Your task to perform on an android device: manage bookmarks in the chrome app Image 0: 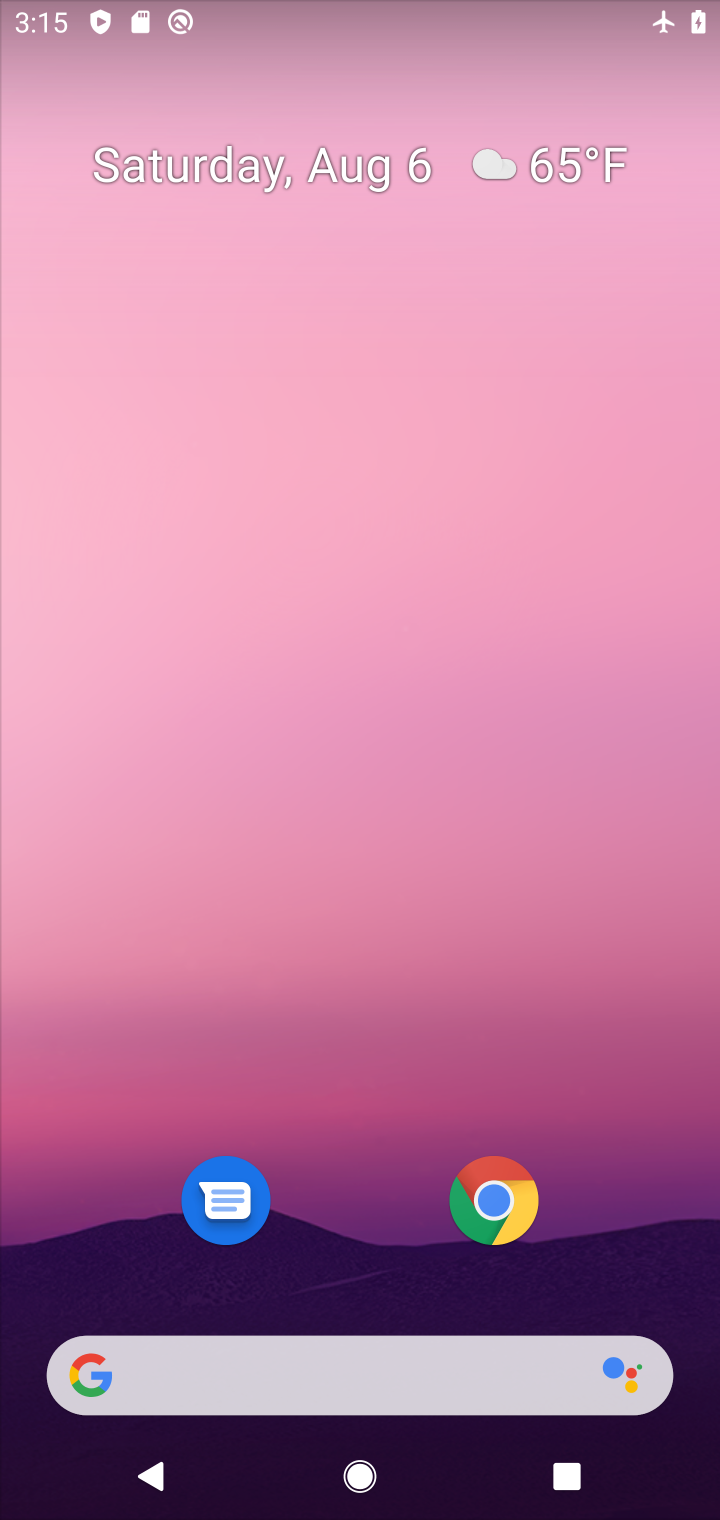
Step 0: click (464, 1187)
Your task to perform on an android device: manage bookmarks in the chrome app Image 1: 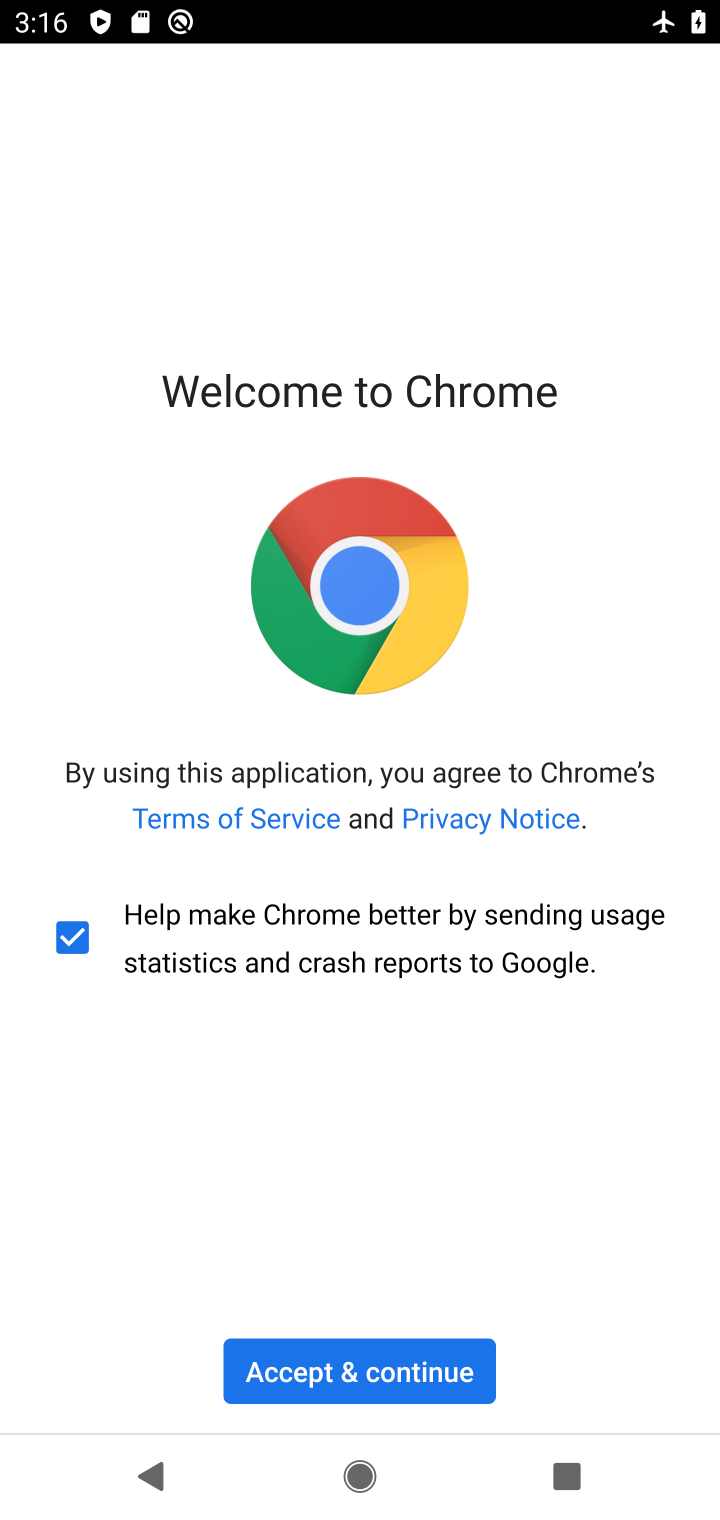
Step 1: click (339, 1371)
Your task to perform on an android device: manage bookmarks in the chrome app Image 2: 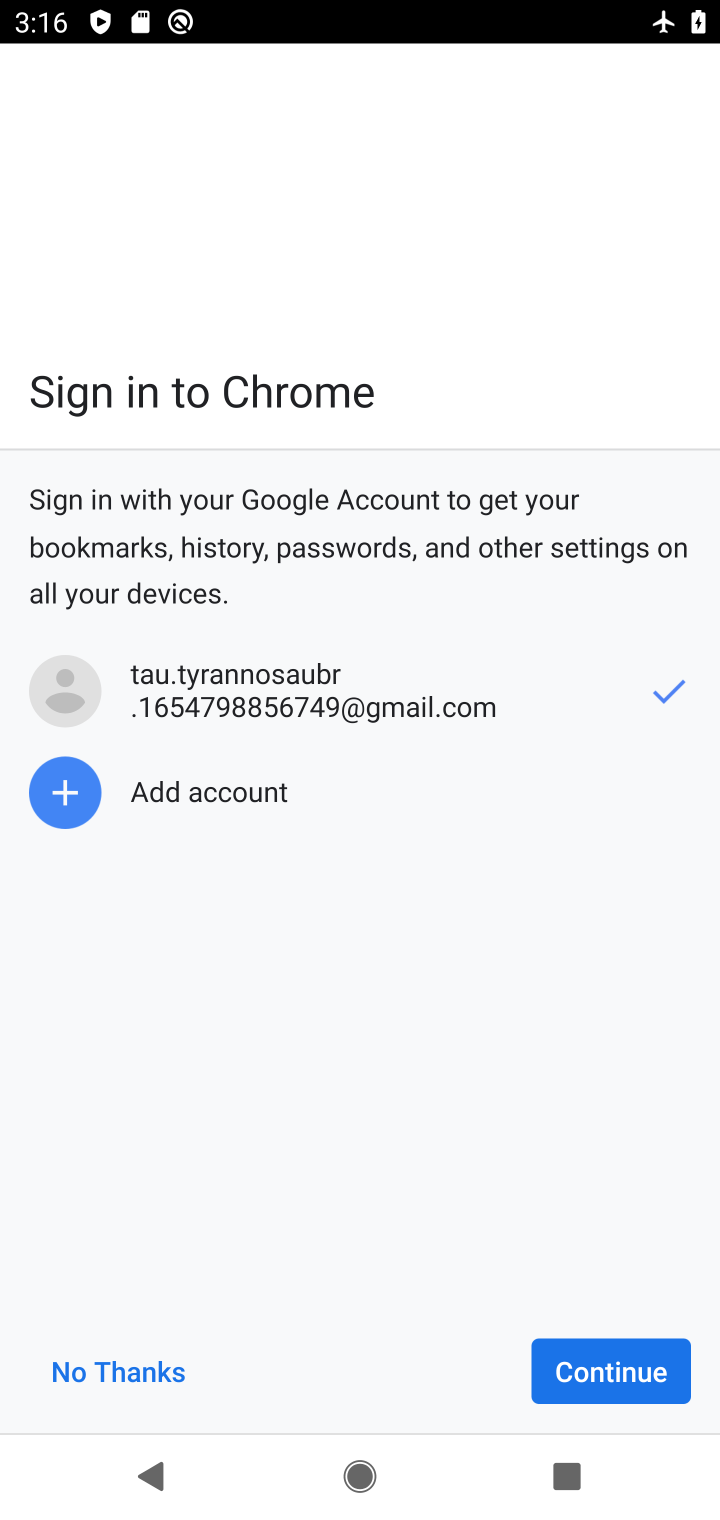
Step 2: click (591, 1392)
Your task to perform on an android device: manage bookmarks in the chrome app Image 3: 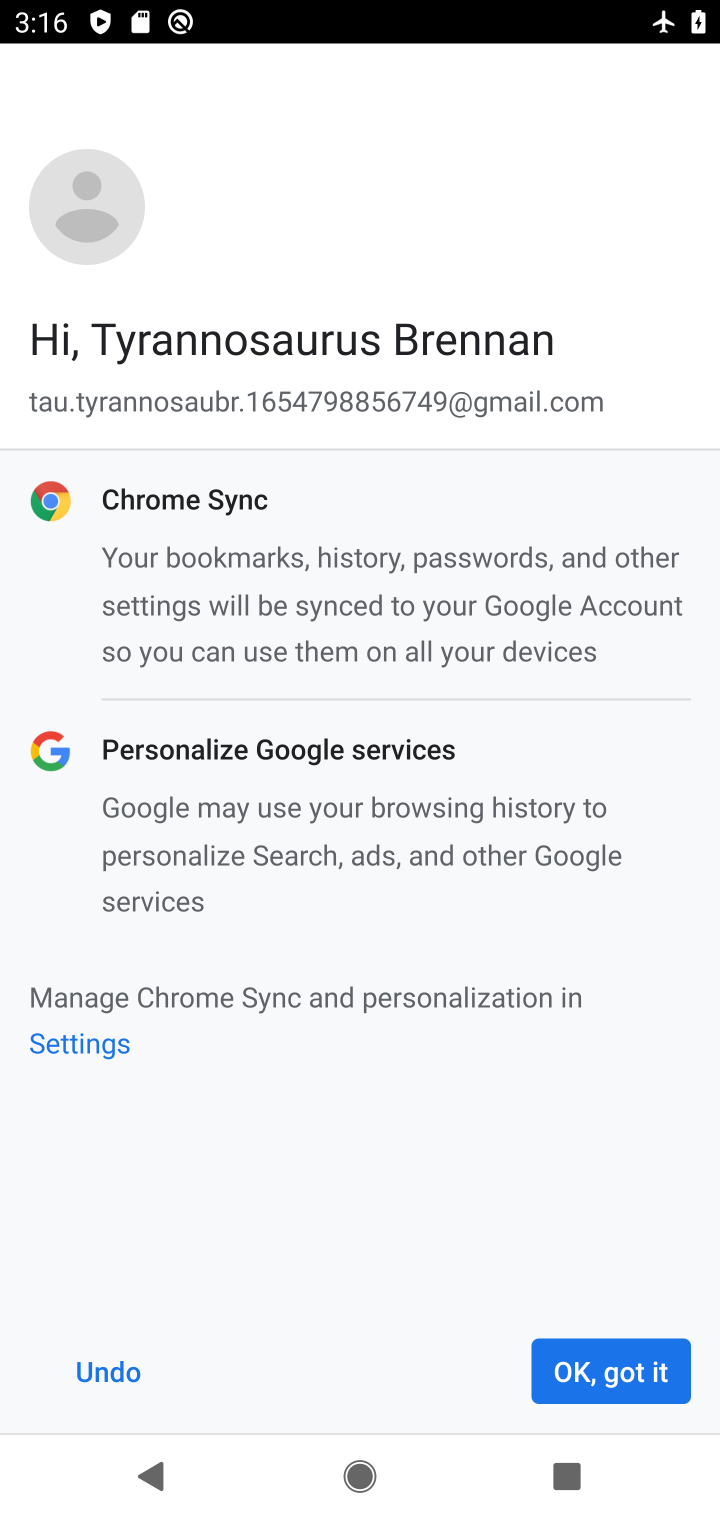
Step 3: click (591, 1392)
Your task to perform on an android device: manage bookmarks in the chrome app Image 4: 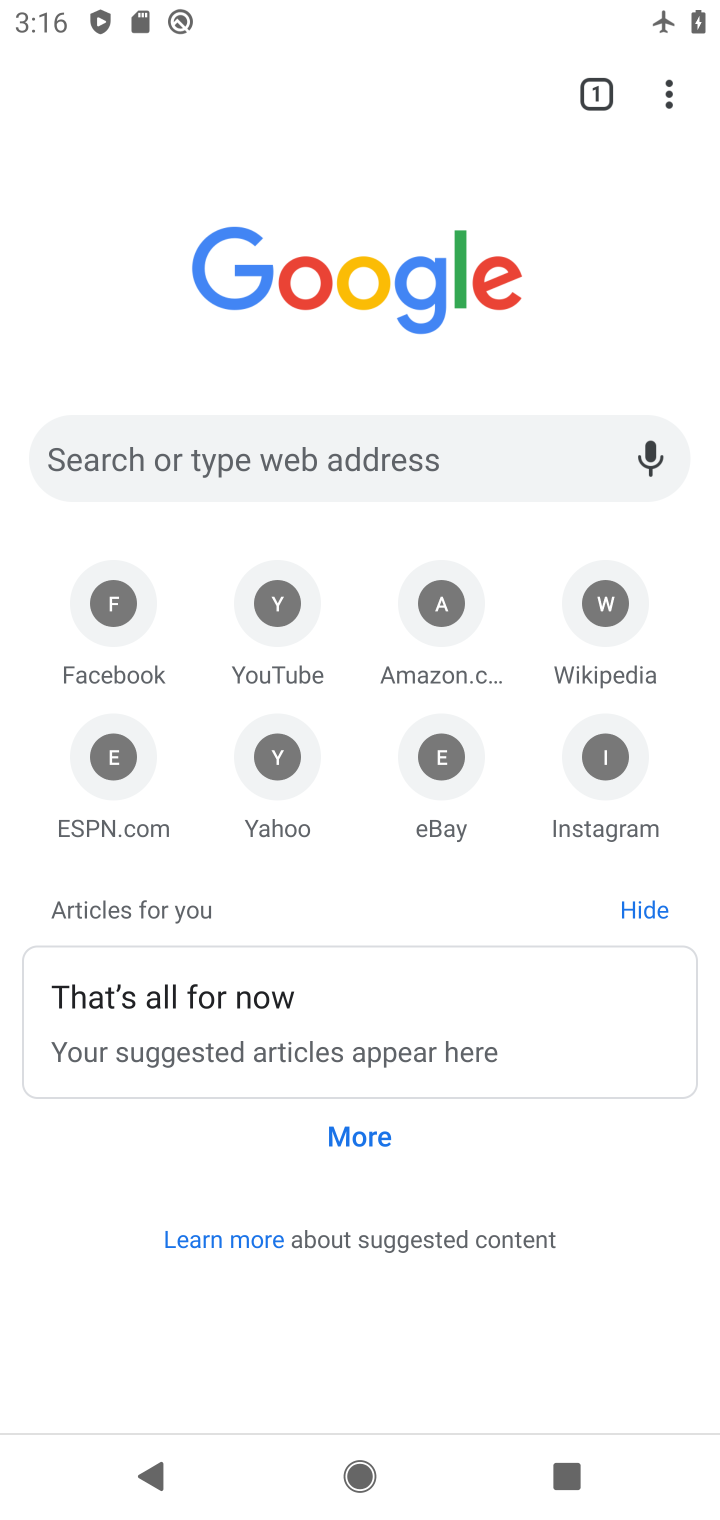
Step 4: click (676, 103)
Your task to perform on an android device: manage bookmarks in the chrome app Image 5: 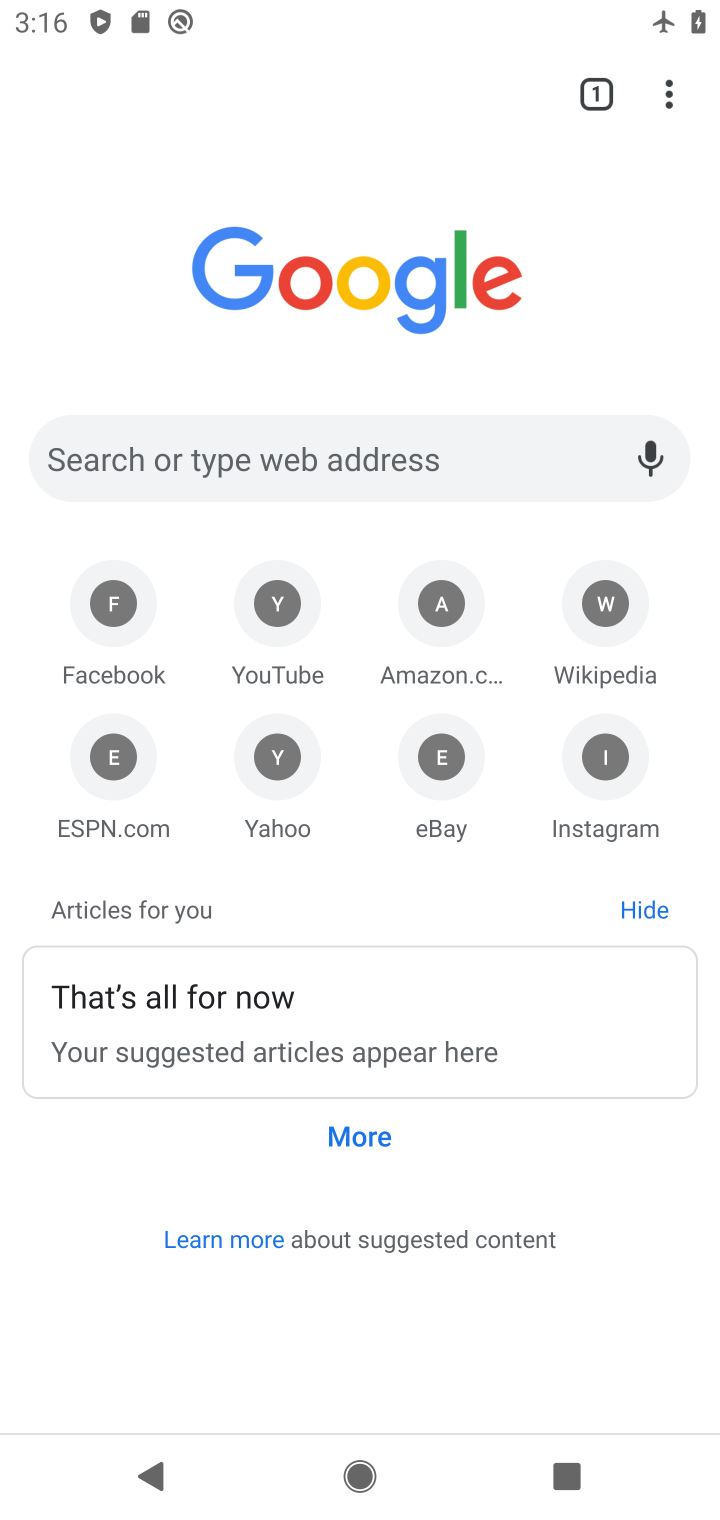
Step 5: click (673, 82)
Your task to perform on an android device: manage bookmarks in the chrome app Image 6: 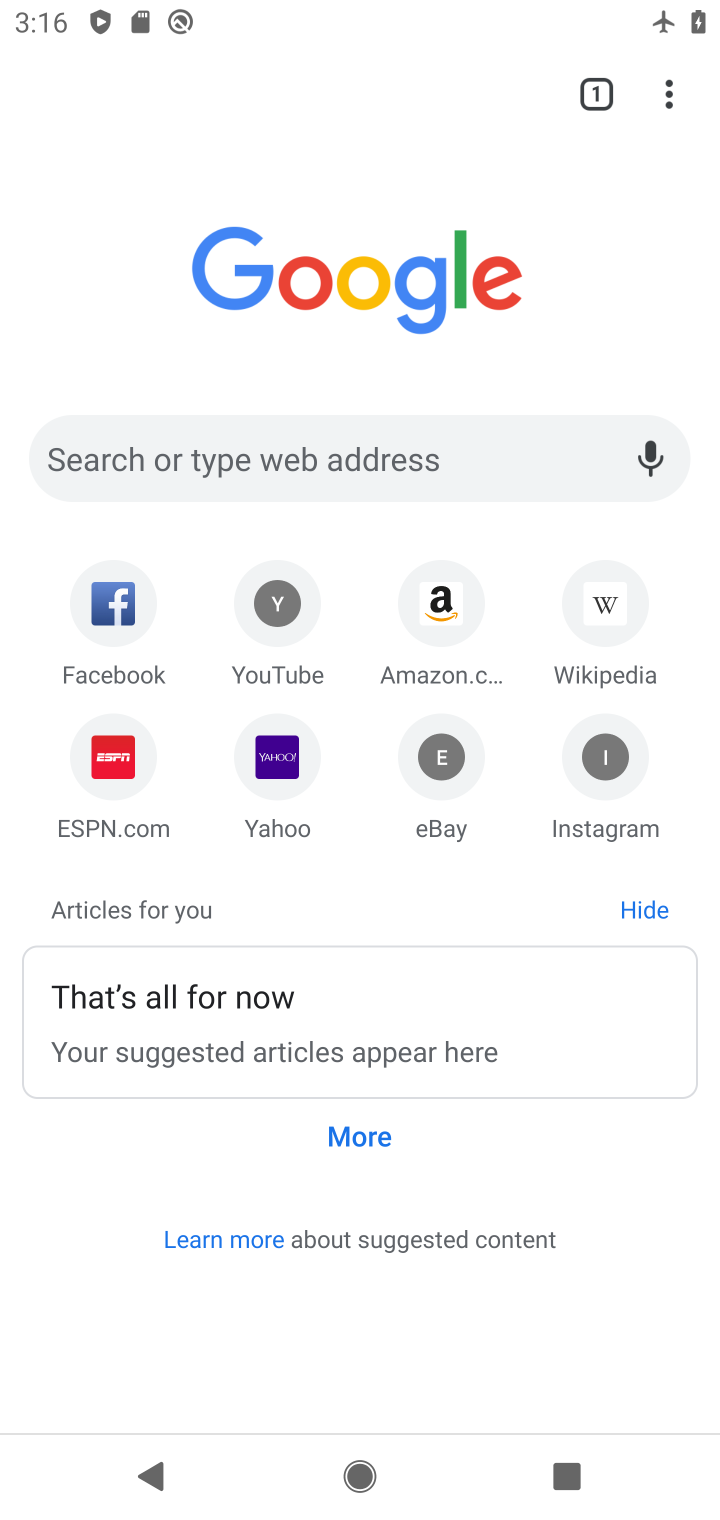
Step 6: click (662, 89)
Your task to perform on an android device: manage bookmarks in the chrome app Image 7: 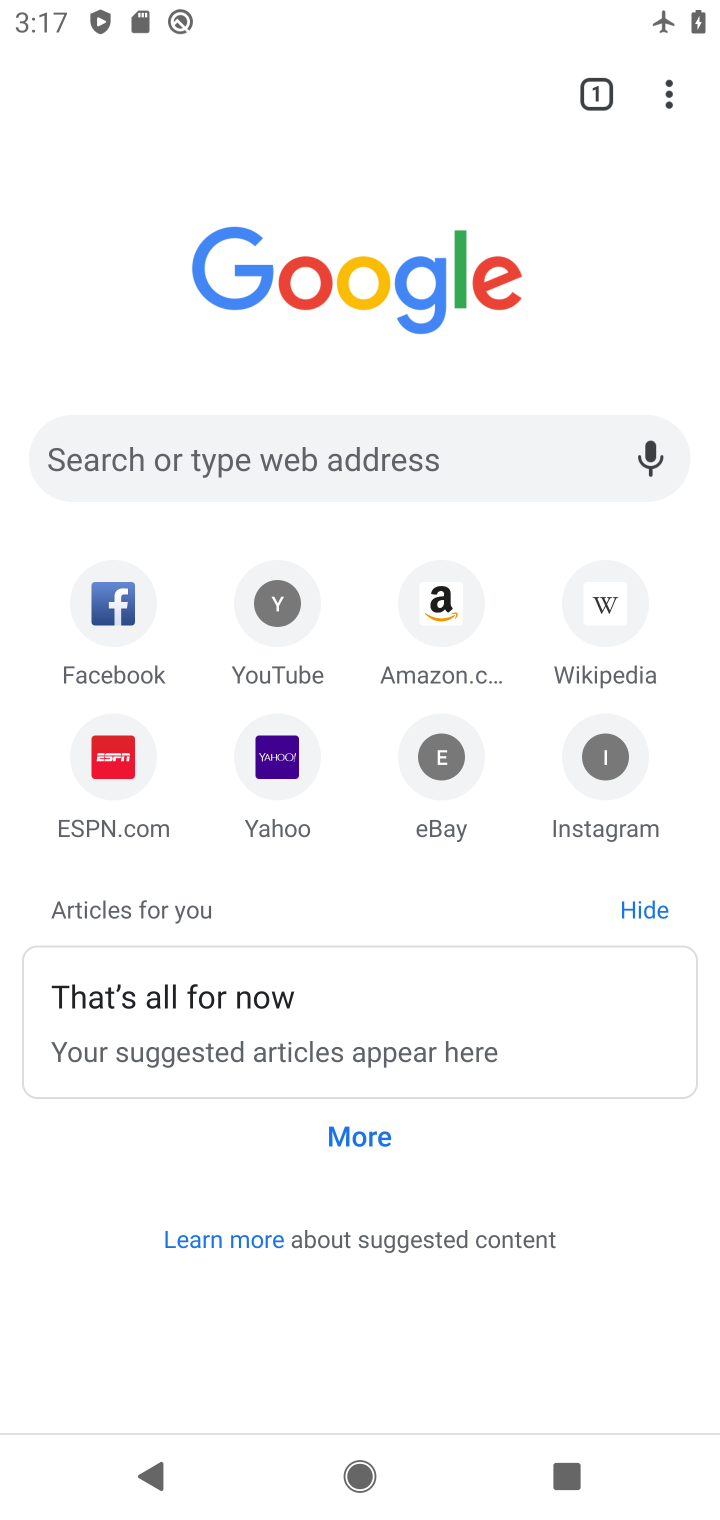
Step 7: task complete